Your task to perform on an android device: show emergency info Image 0: 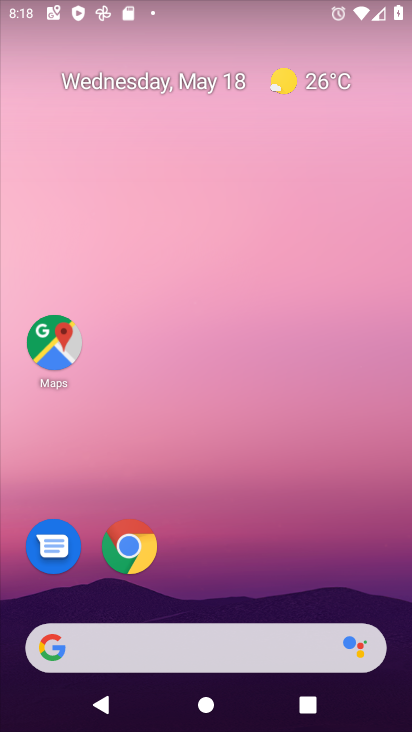
Step 0: drag from (342, 588) to (308, 60)
Your task to perform on an android device: show emergency info Image 1: 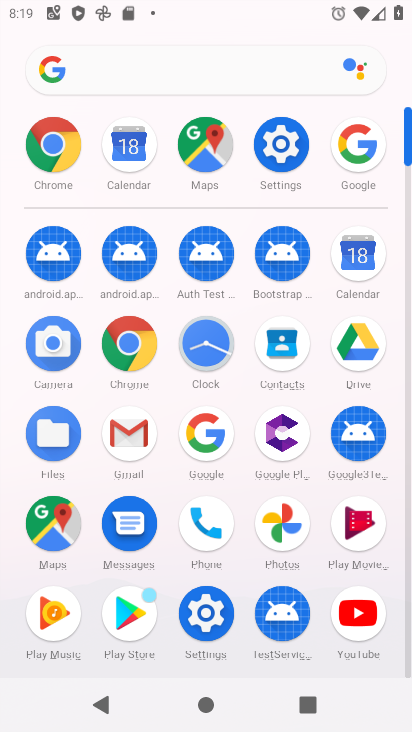
Step 1: click (291, 164)
Your task to perform on an android device: show emergency info Image 2: 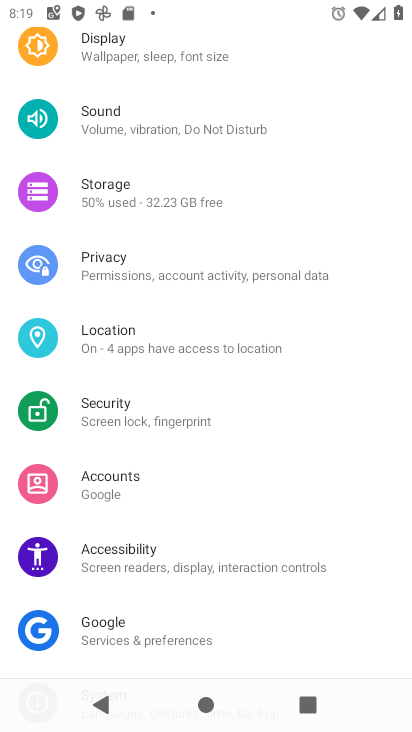
Step 2: drag from (105, 610) to (140, 125)
Your task to perform on an android device: show emergency info Image 3: 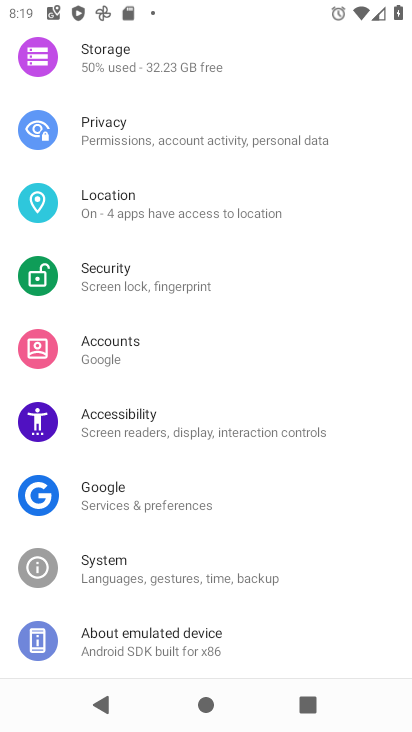
Step 3: click (136, 618)
Your task to perform on an android device: show emergency info Image 4: 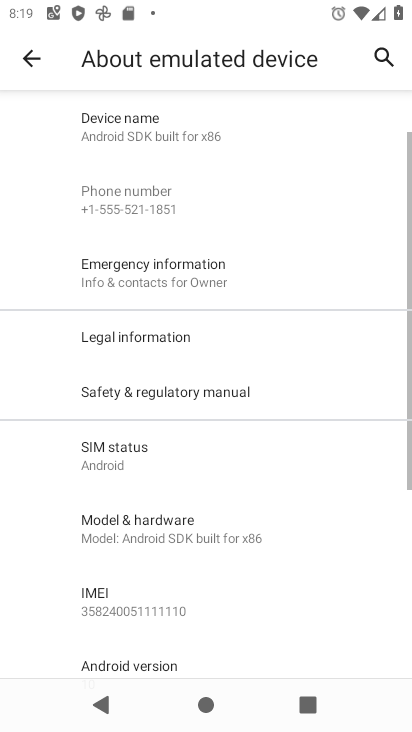
Step 4: click (204, 248)
Your task to perform on an android device: show emergency info Image 5: 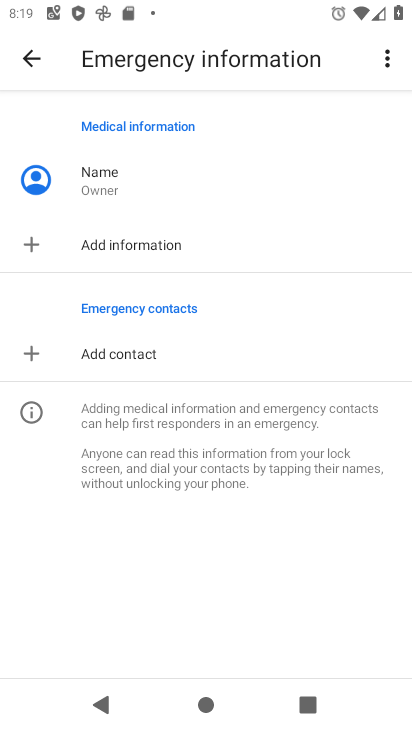
Step 5: task complete